Your task to perform on an android device: Open Yahoo.com Image 0: 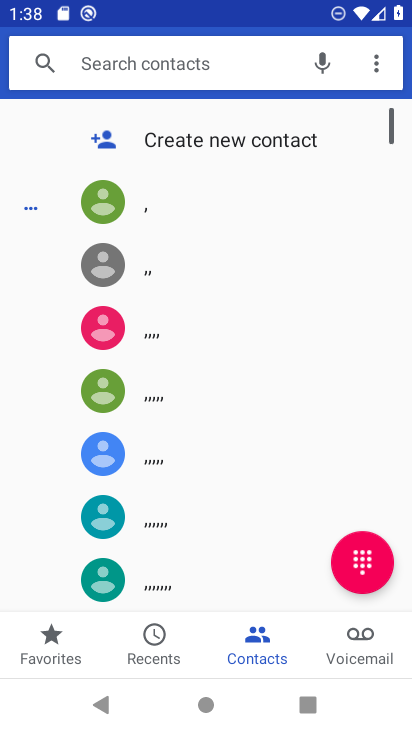
Step 0: press home button
Your task to perform on an android device: Open Yahoo.com Image 1: 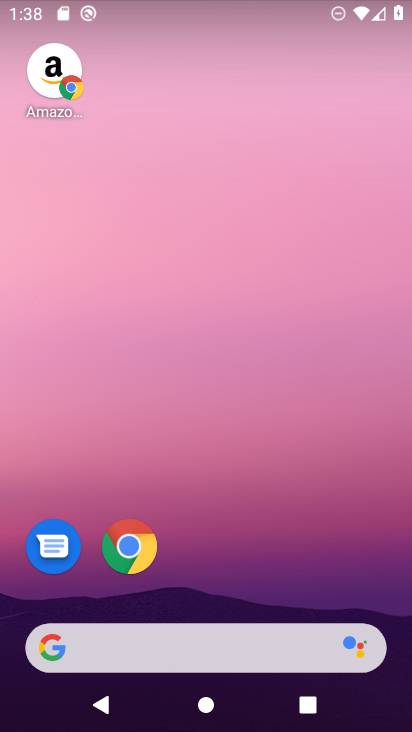
Step 1: drag from (257, 656) to (359, 95)
Your task to perform on an android device: Open Yahoo.com Image 2: 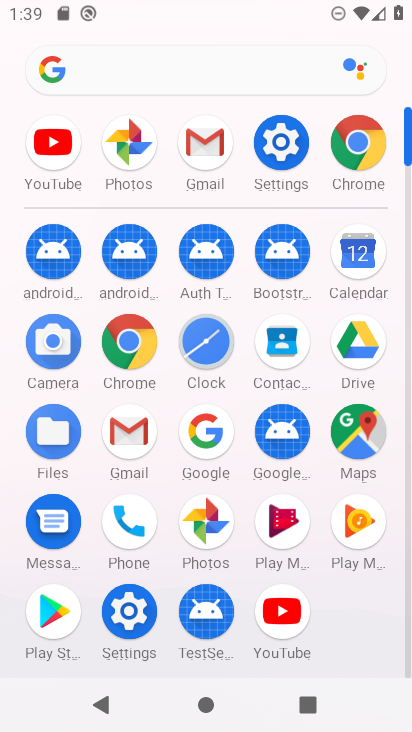
Step 2: click (345, 148)
Your task to perform on an android device: Open Yahoo.com Image 3: 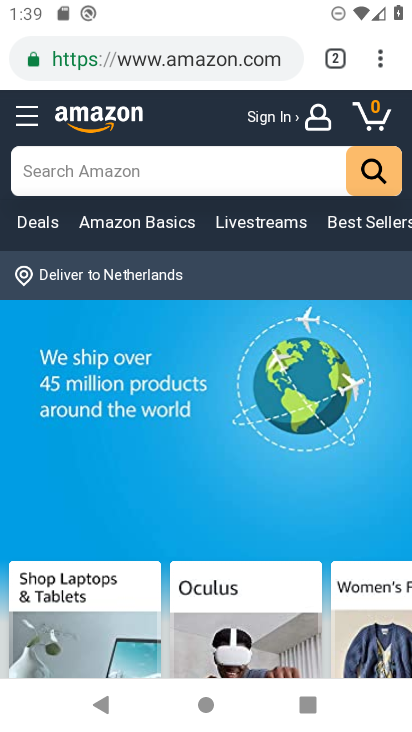
Step 3: click (337, 66)
Your task to perform on an android device: Open Yahoo.com Image 4: 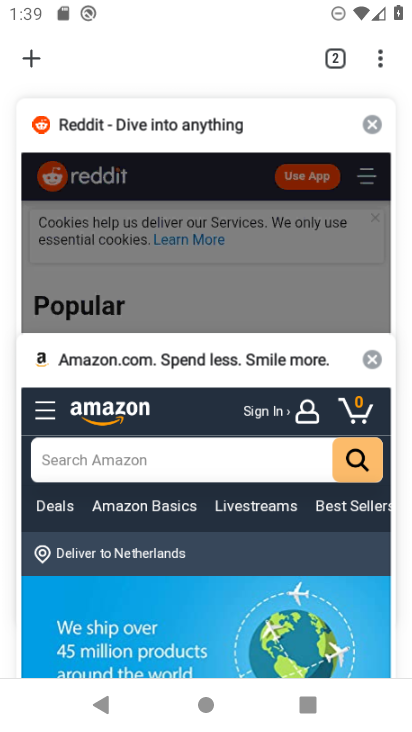
Step 4: click (37, 62)
Your task to perform on an android device: Open Yahoo.com Image 5: 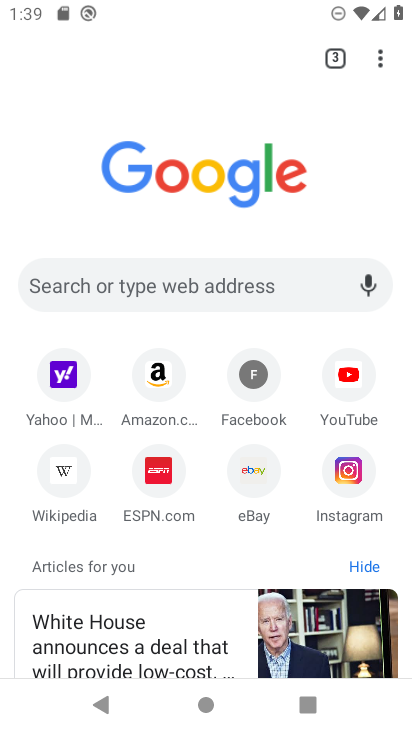
Step 5: click (66, 380)
Your task to perform on an android device: Open Yahoo.com Image 6: 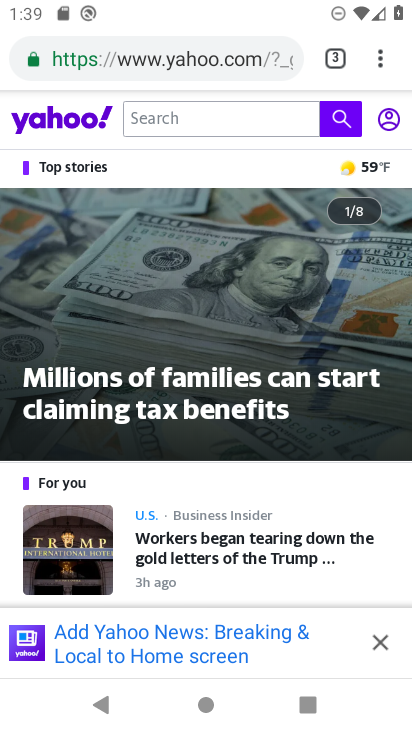
Step 6: task complete